Your task to perform on an android device: turn on translation in the chrome app Image 0: 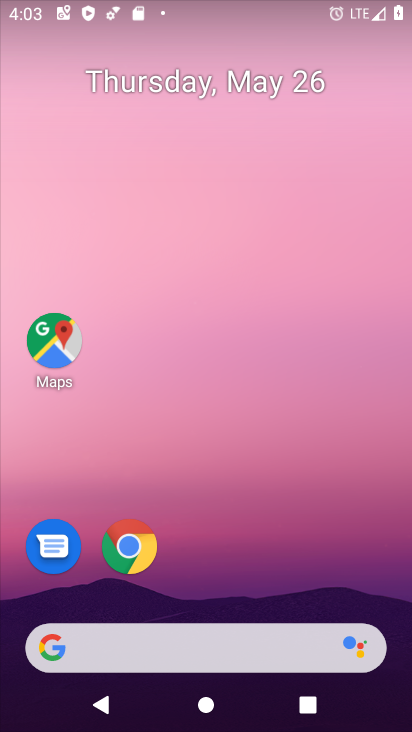
Step 0: click (138, 541)
Your task to perform on an android device: turn on translation in the chrome app Image 1: 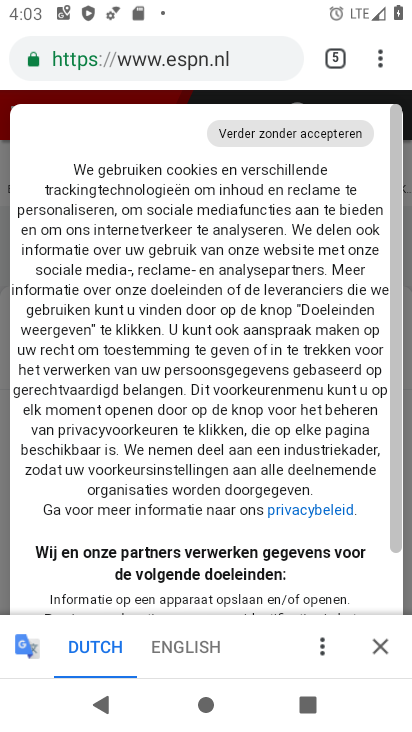
Step 1: drag from (381, 52) to (213, 577)
Your task to perform on an android device: turn on translation in the chrome app Image 2: 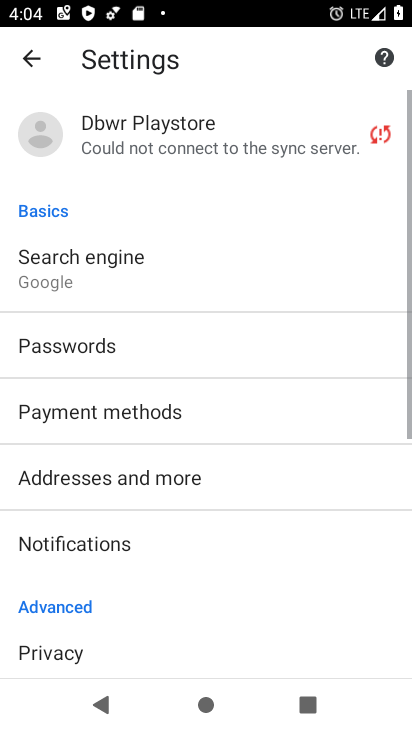
Step 2: drag from (206, 568) to (308, 9)
Your task to perform on an android device: turn on translation in the chrome app Image 3: 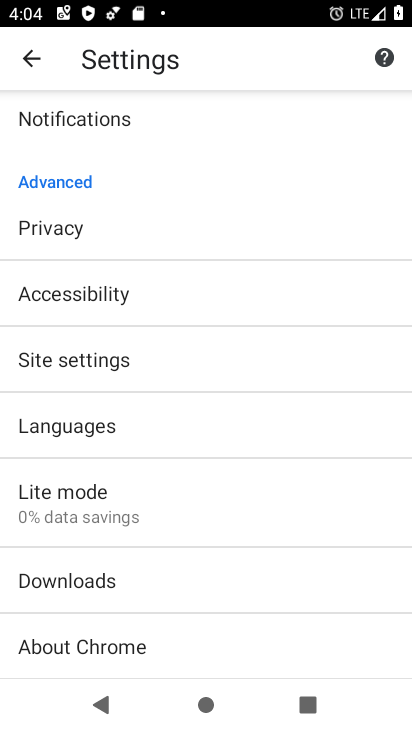
Step 3: click (107, 421)
Your task to perform on an android device: turn on translation in the chrome app Image 4: 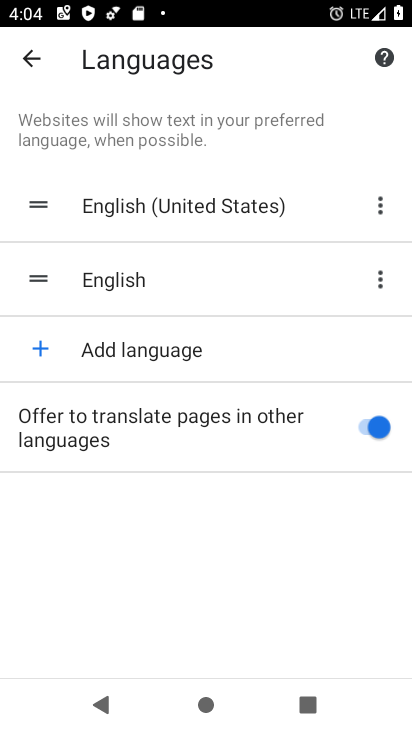
Step 4: task complete